Your task to perform on an android device: What's on my calendar today? Image 0: 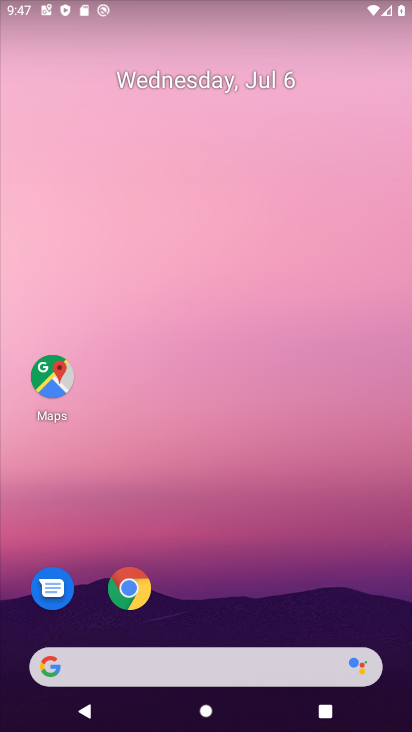
Step 0: drag from (221, 621) to (298, 18)
Your task to perform on an android device: What's on my calendar today? Image 1: 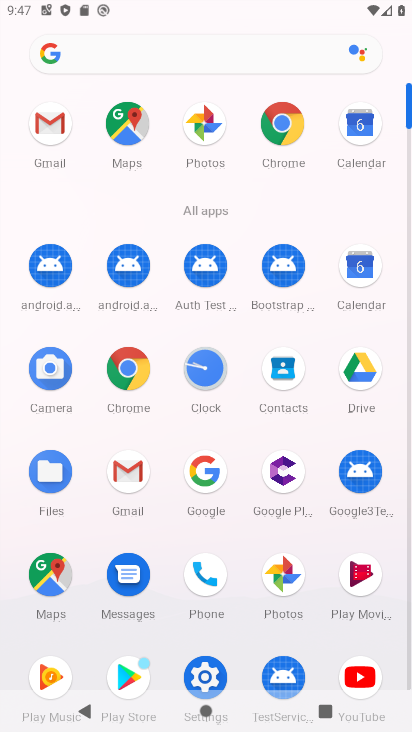
Step 1: click (362, 117)
Your task to perform on an android device: What's on my calendar today? Image 2: 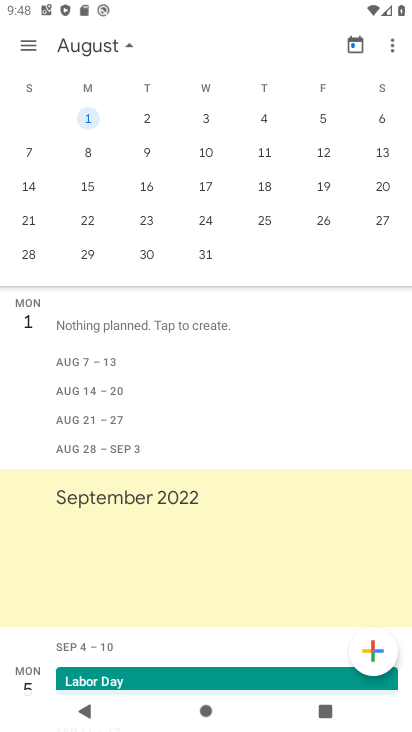
Step 2: drag from (29, 174) to (395, 164)
Your task to perform on an android device: What's on my calendar today? Image 3: 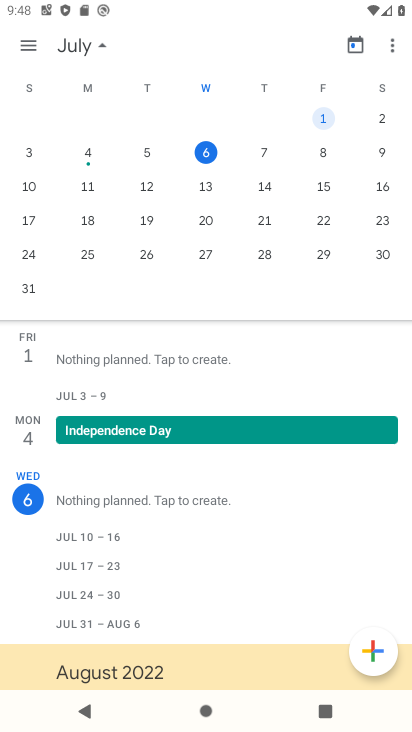
Step 3: click (361, 168)
Your task to perform on an android device: What's on my calendar today? Image 4: 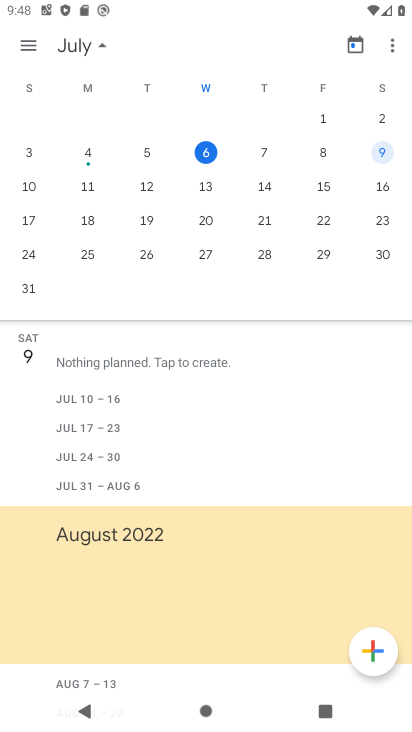
Step 4: click (204, 150)
Your task to perform on an android device: What's on my calendar today? Image 5: 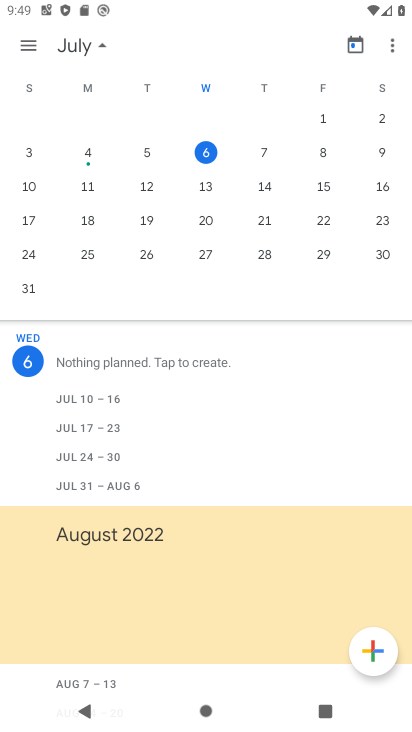
Step 5: task complete